Your task to perform on an android device: check google app version Image 0: 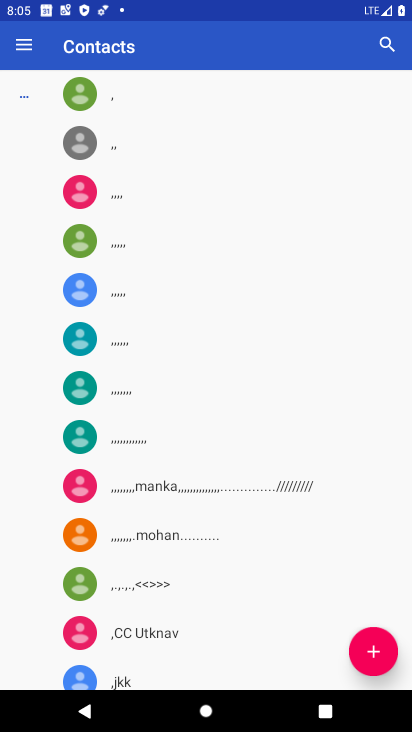
Step 0: press back button
Your task to perform on an android device: check google app version Image 1: 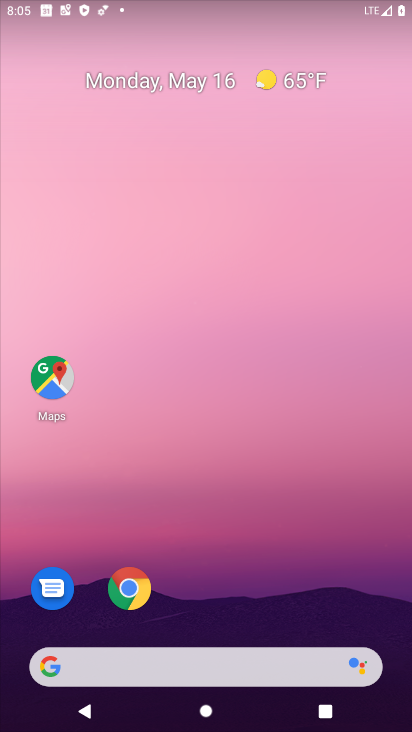
Step 1: drag from (229, 582) to (166, 72)
Your task to perform on an android device: check google app version Image 2: 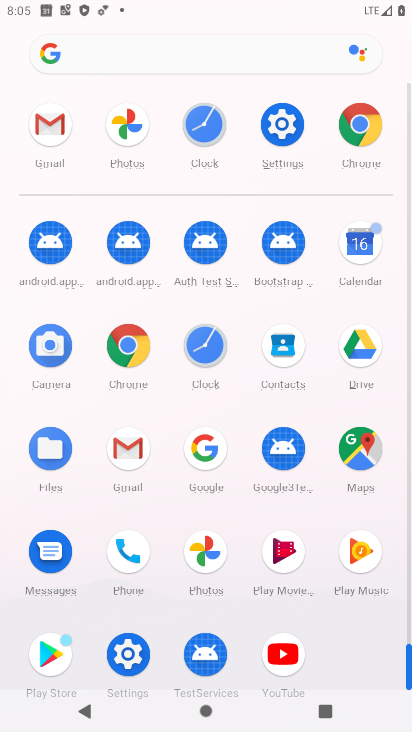
Step 2: click (202, 444)
Your task to perform on an android device: check google app version Image 3: 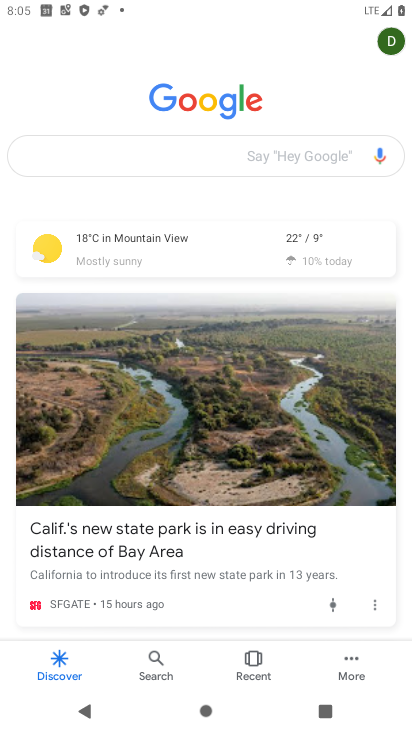
Step 3: click (355, 655)
Your task to perform on an android device: check google app version Image 4: 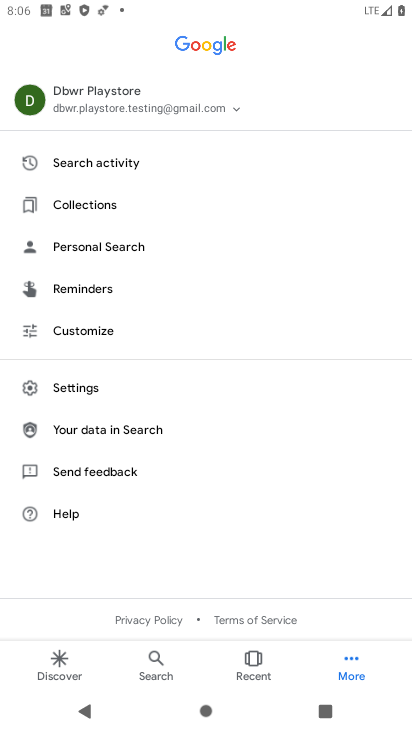
Step 4: click (86, 388)
Your task to perform on an android device: check google app version Image 5: 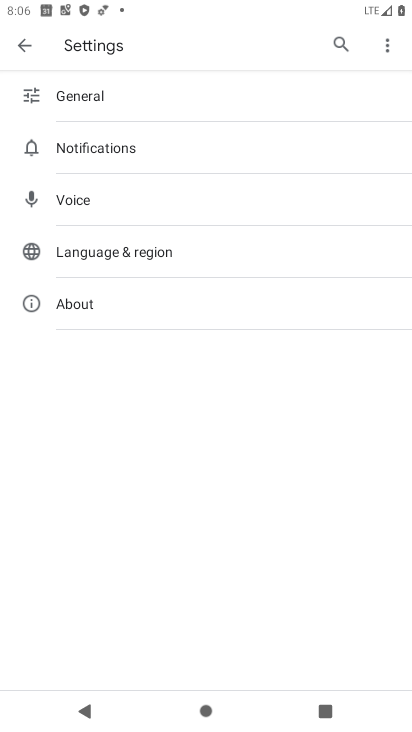
Step 5: click (110, 295)
Your task to perform on an android device: check google app version Image 6: 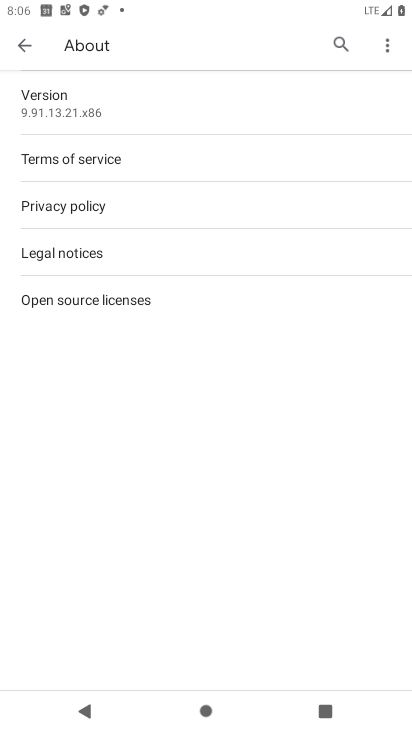
Step 6: task complete